Your task to perform on an android device: search for starred emails in the gmail app Image 0: 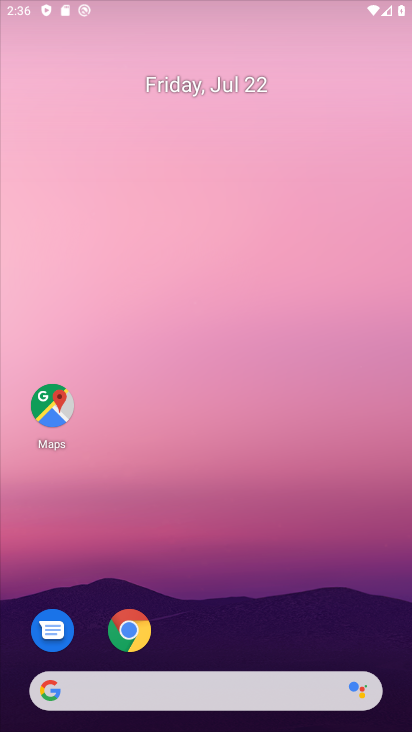
Step 0: press home button
Your task to perform on an android device: search for starred emails in the gmail app Image 1: 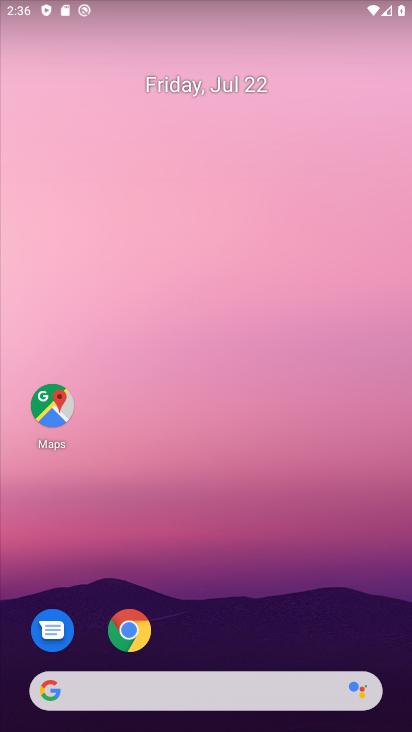
Step 1: drag from (219, 707) to (181, 86)
Your task to perform on an android device: search for starred emails in the gmail app Image 2: 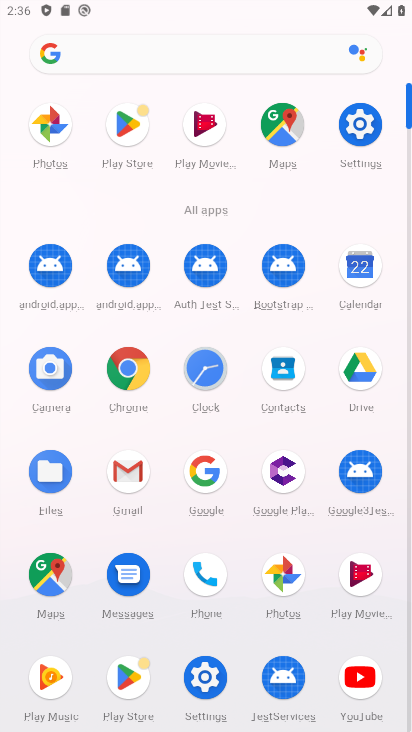
Step 2: click (133, 466)
Your task to perform on an android device: search for starred emails in the gmail app Image 3: 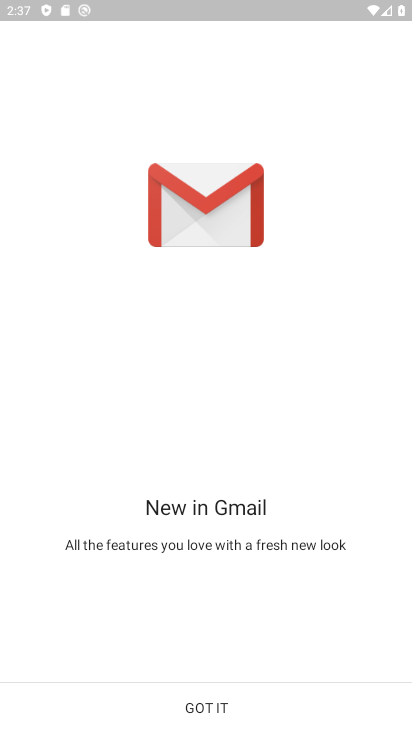
Step 3: click (180, 707)
Your task to perform on an android device: search for starred emails in the gmail app Image 4: 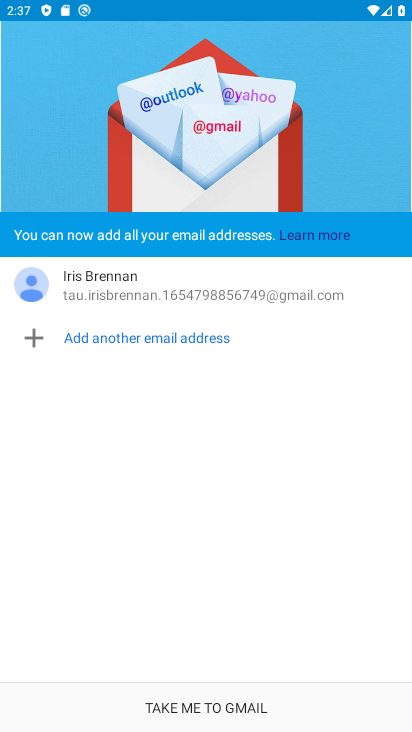
Step 4: click (180, 707)
Your task to perform on an android device: search for starred emails in the gmail app Image 5: 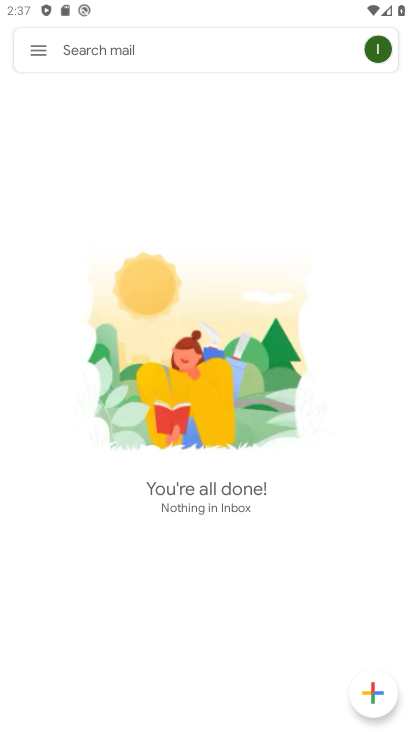
Step 5: task complete